Your task to perform on an android device: Is it going to rain today? Image 0: 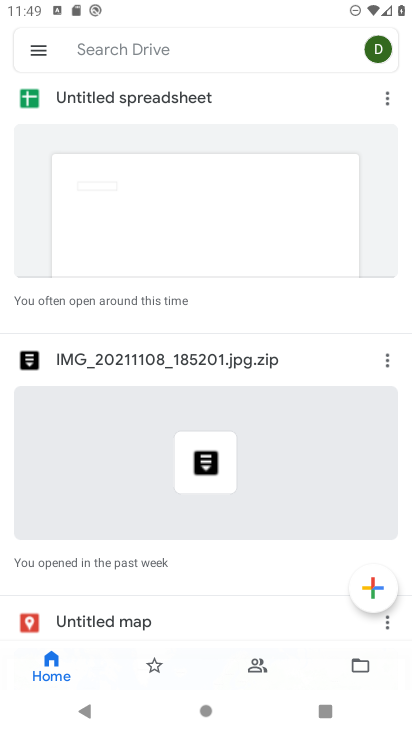
Step 0: press home button
Your task to perform on an android device: Is it going to rain today? Image 1: 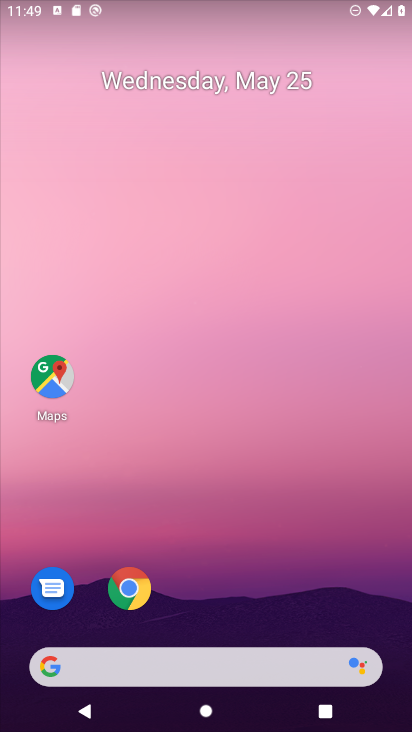
Step 1: click (132, 667)
Your task to perform on an android device: Is it going to rain today? Image 2: 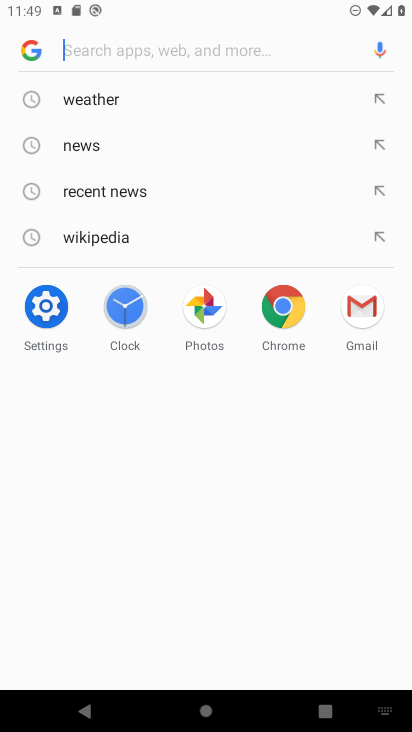
Step 2: click (90, 93)
Your task to perform on an android device: Is it going to rain today? Image 3: 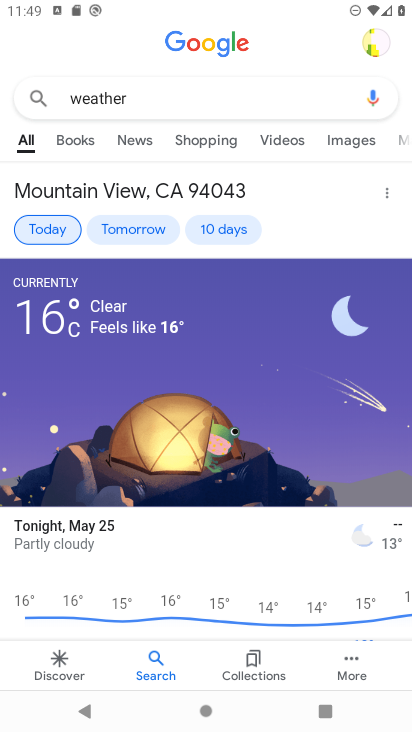
Step 3: task complete